Your task to perform on an android device: Do I have any events tomorrow? Image 0: 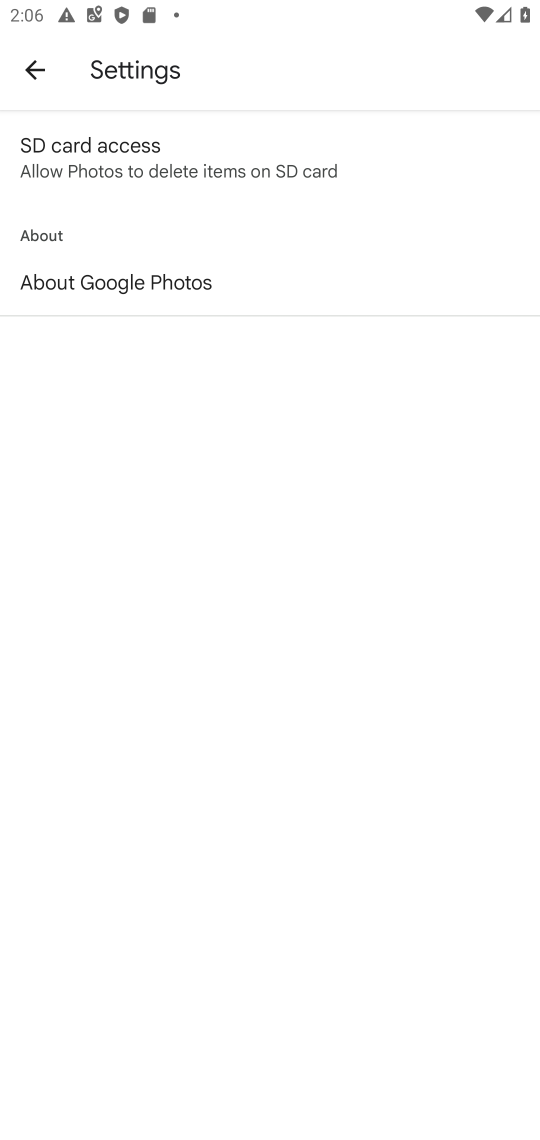
Step 0: press home button
Your task to perform on an android device: Do I have any events tomorrow? Image 1: 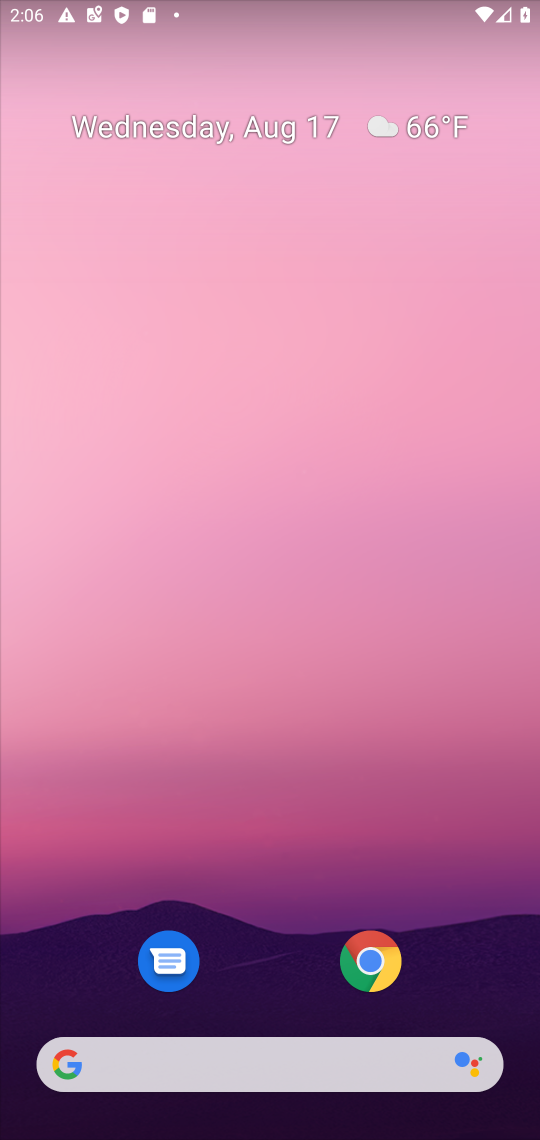
Step 1: drag from (465, 560) to (537, 239)
Your task to perform on an android device: Do I have any events tomorrow? Image 2: 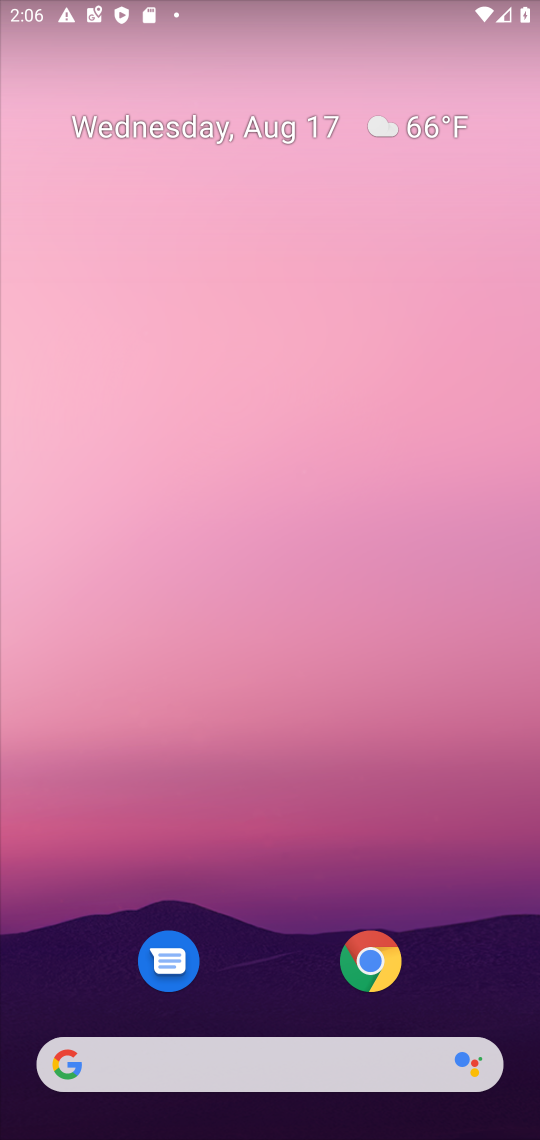
Step 2: drag from (271, 844) to (294, 25)
Your task to perform on an android device: Do I have any events tomorrow? Image 3: 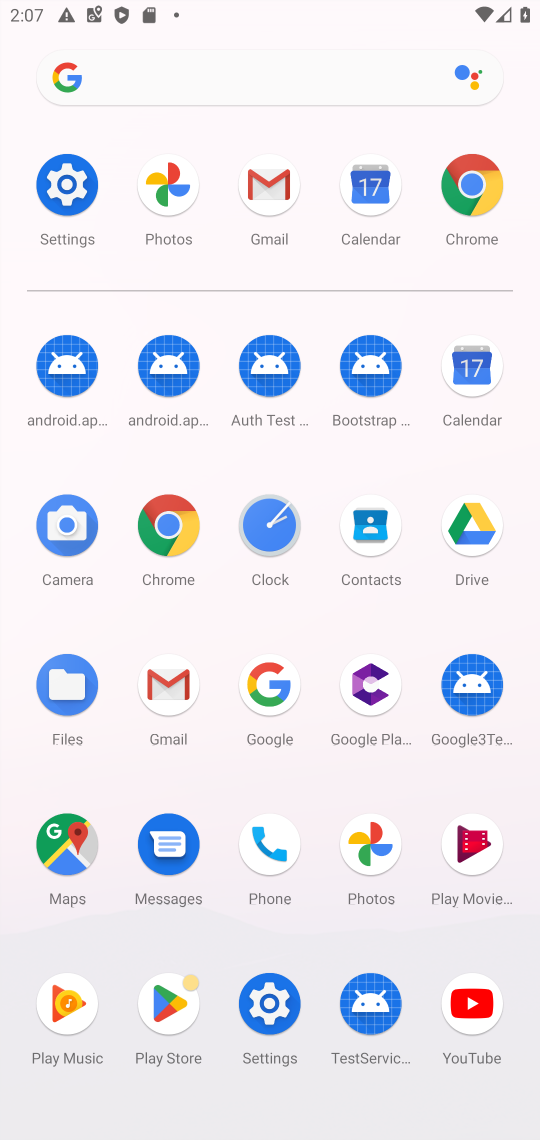
Step 3: click (484, 370)
Your task to perform on an android device: Do I have any events tomorrow? Image 4: 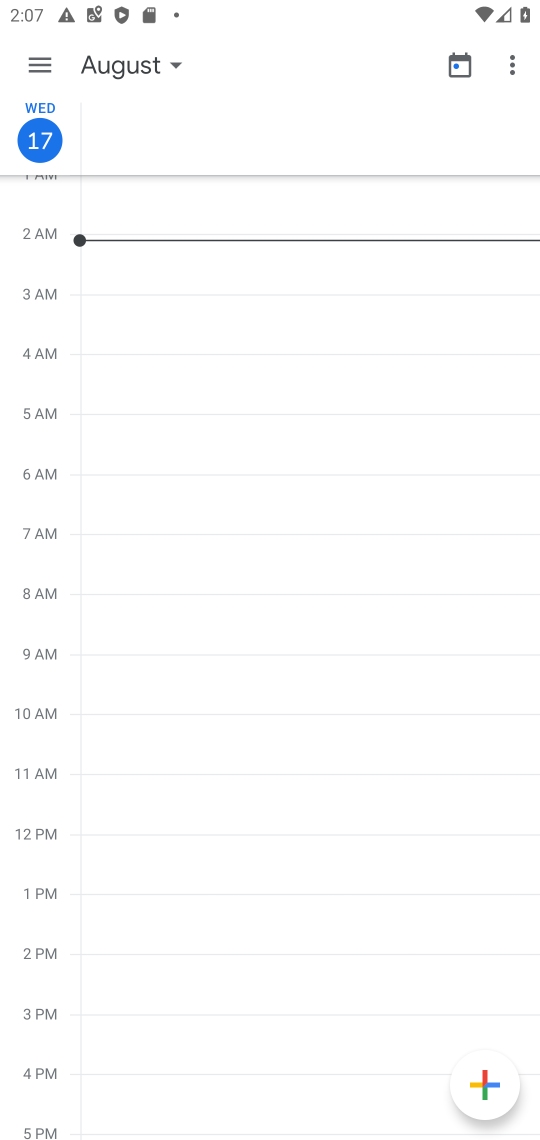
Step 4: click (45, 76)
Your task to perform on an android device: Do I have any events tomorrow? Image 5: 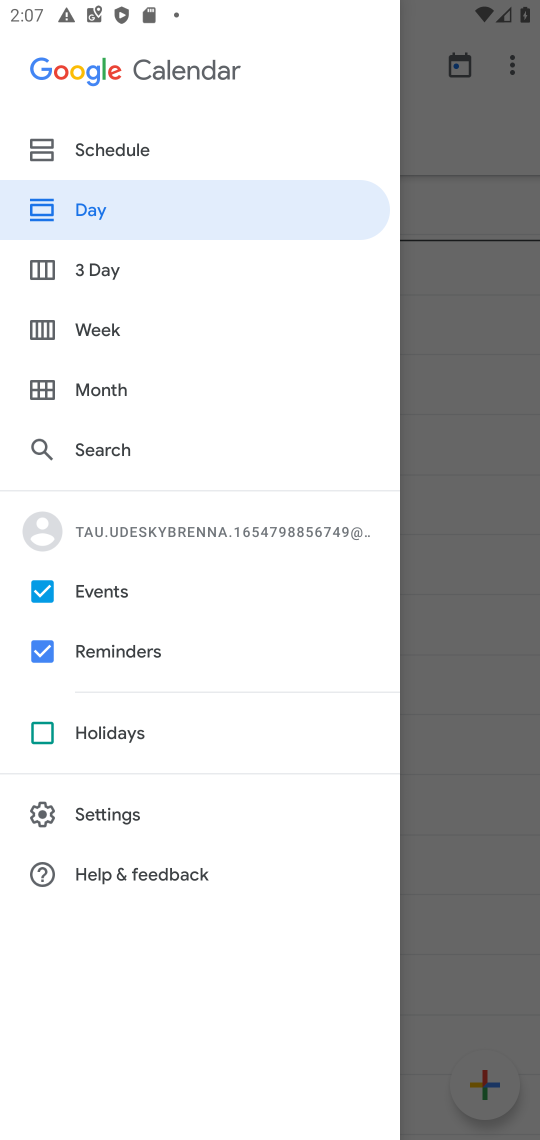
Step 5: click (152, 156)
Your task to perform on an android device: Do I have any events tomorrow? Image 6: 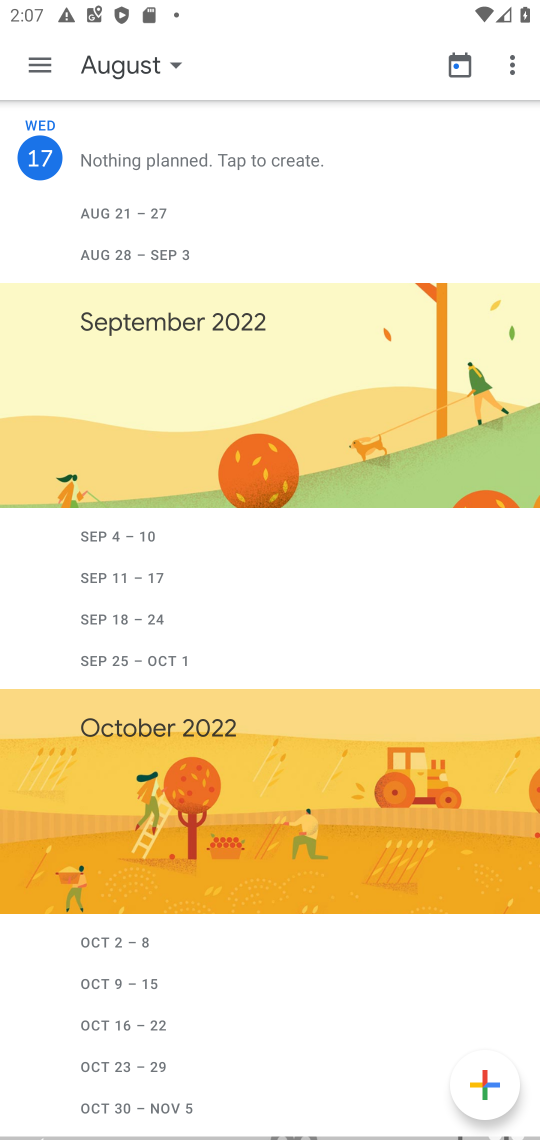
Step 6: click (154, 71)
Your task to perform on an android device: Do I have any events tomorrow? Image 7: 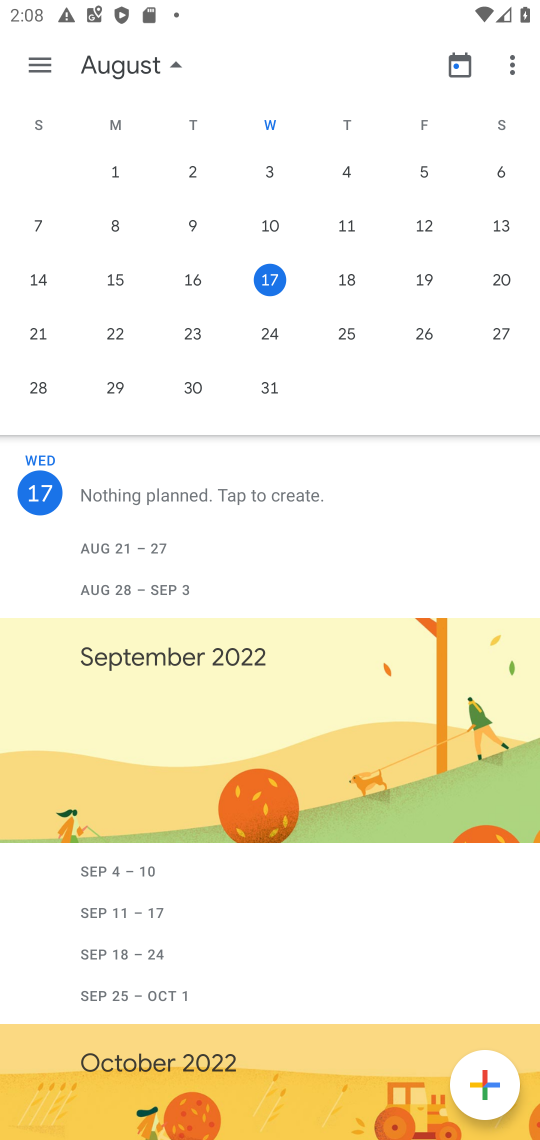
Step 7: click (351, 285)
Your task to perform on an android device: Do I have any events tomorrow? Image 8: 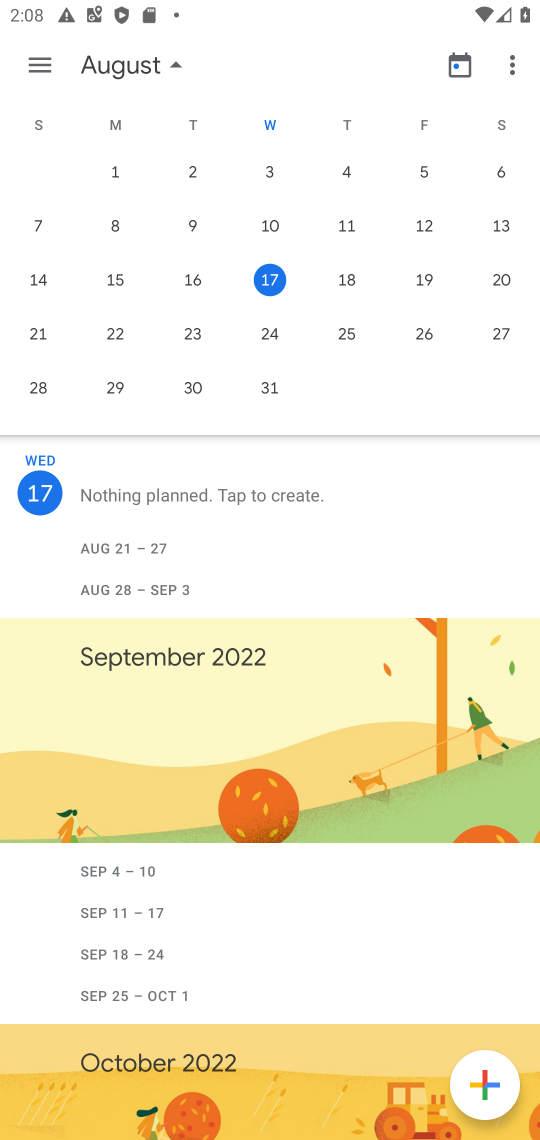
Step 8: task complete